Your task to perform on an android device: open chrome and create a bookmark for the current page Image 0: 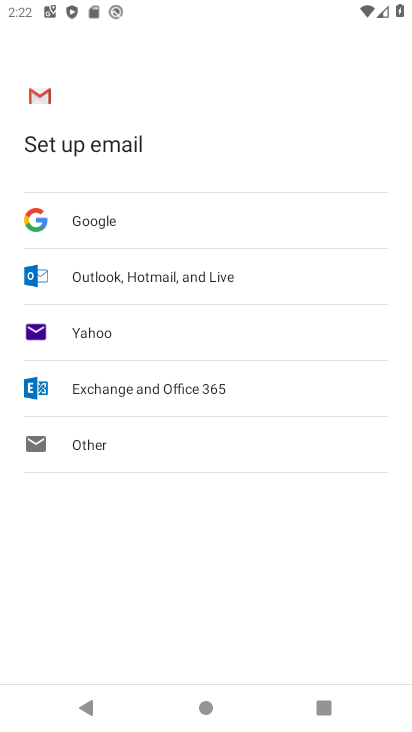
Step 0: press home button
Your task to perform on an android device: open chrome and create a bookmark for the current page Image 1: 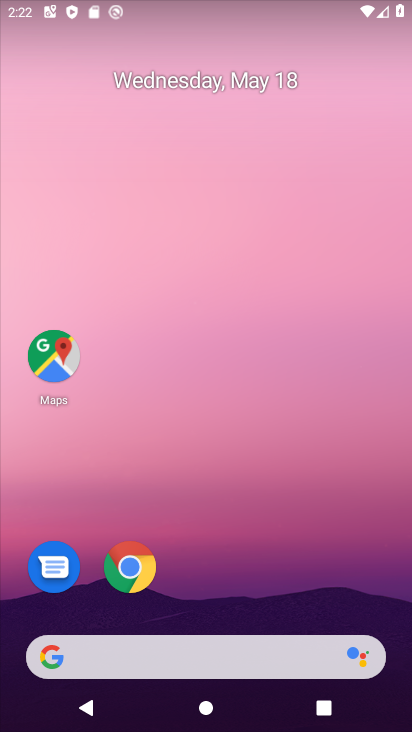
Step 1: click (122, 544)
Your task to perform on an android device: open chrome and create a bookmark for the current page Image 2: 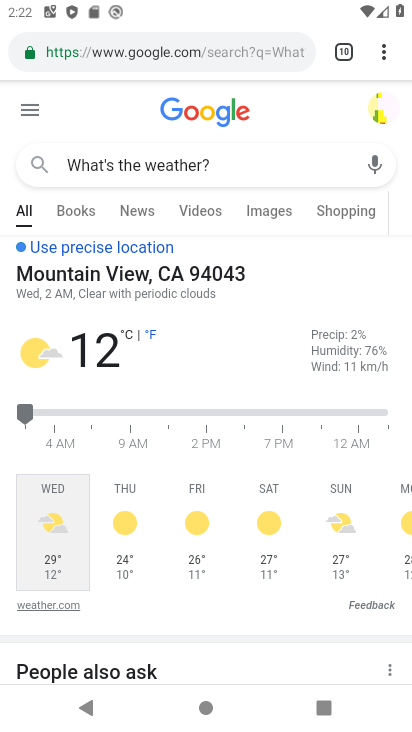
Step 2: click (362, 56)
Your task to perform on an android device: open chrome and create a bookmark for the current page Image 3: 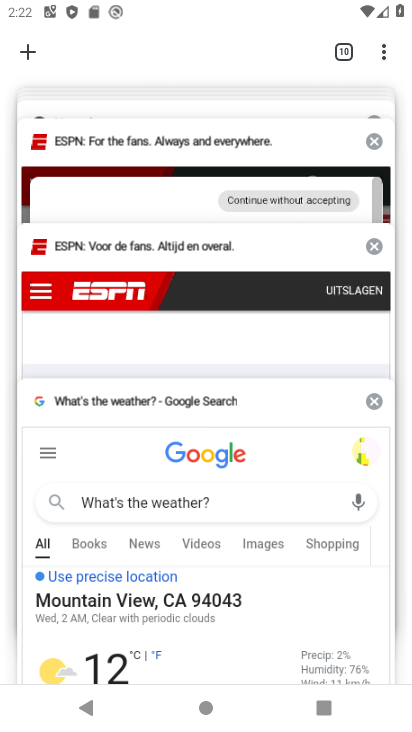
Step 3: click (273, 304)
Your task to perform on an android device: open chrome and create a bookmark for the current page Image 4: 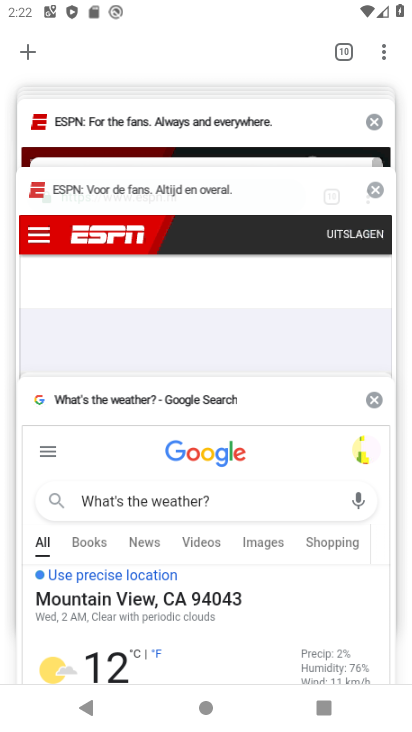
Step 4: click (209, 424)
Your task to perform on an android device: open chrome and create a bookmark for the current page Image 5: 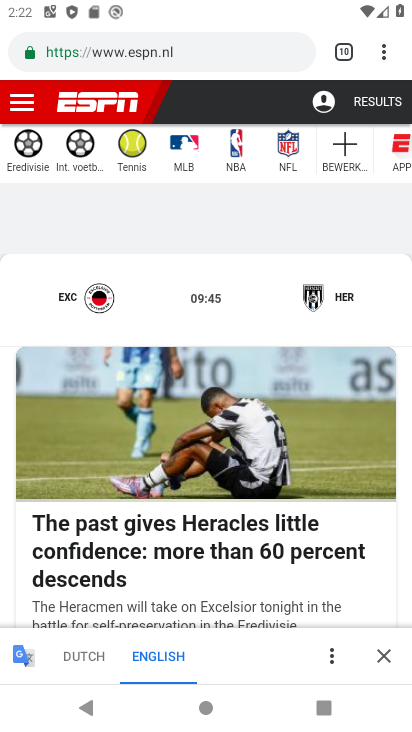
Step 5: click (366, 40)
Your task to perform on an android device: open chrome and create a bookmark for the current page Image 6: 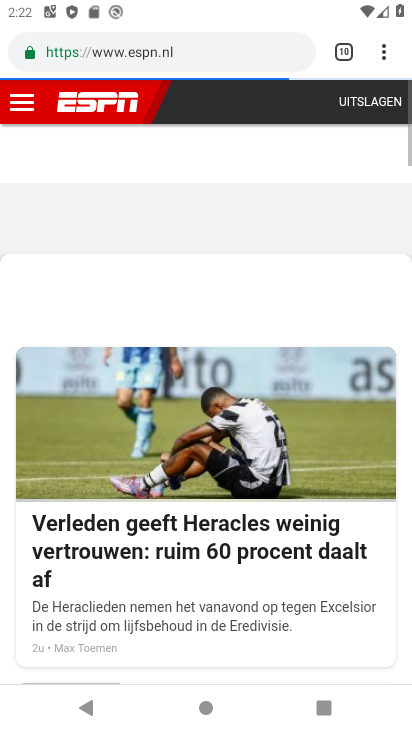
Step 6: task complete